Your task to perform on an android device: What's the weather today? Image 0: 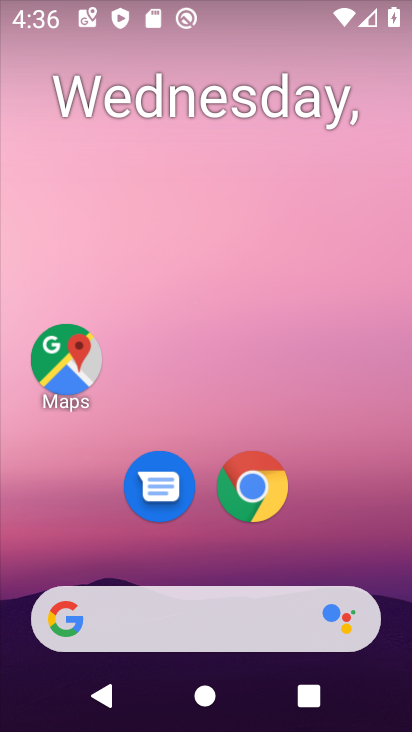
Step 0: drag from (191, 564) to (259, 145)
Your task to perform on an android device: What's the weather today? Image 1: 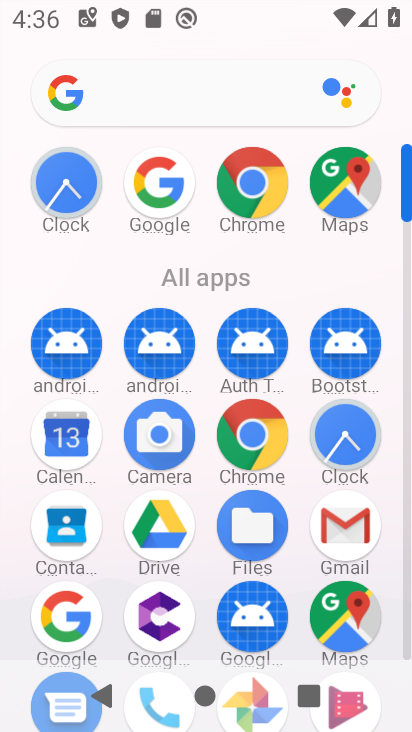
Step 1: click (66, 637)
Your task to perform on an android device: What's the weather today? Image 2: 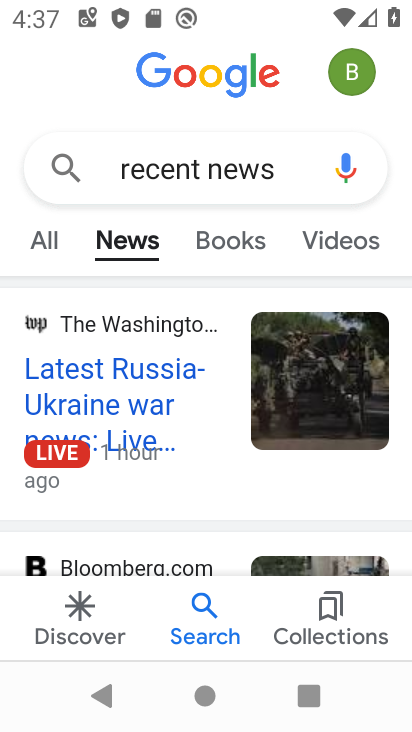
Step 2: click (282, 170)
Your task to perform on an android device: What's the weather today? Image 3: 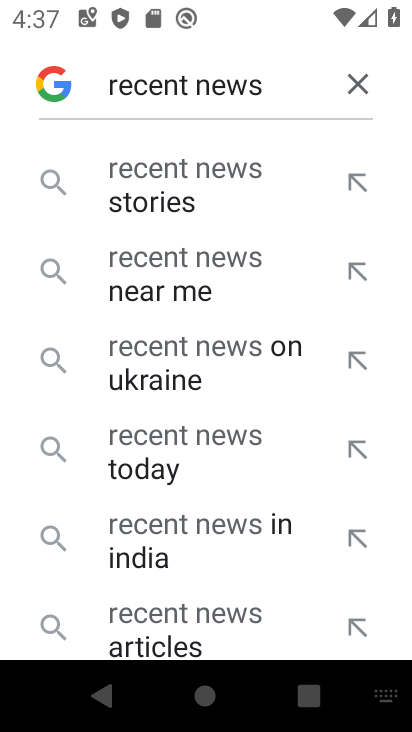
Step 3: click (352, 82)
Your task to perform on an android device: What's the weather today? Image 4: 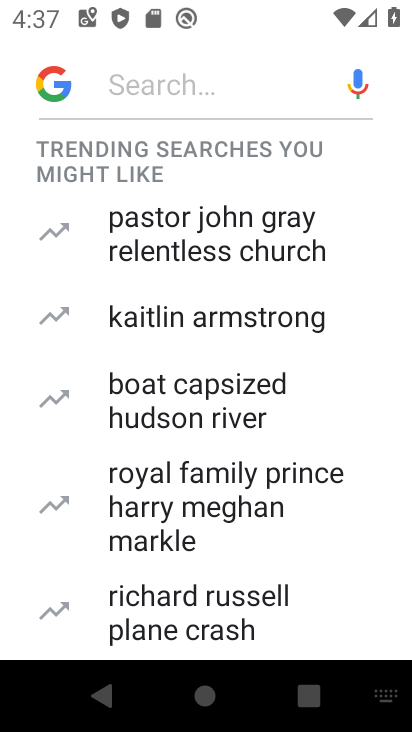
Step 4: type "weather"
Your task to perform on an android device: What's the weather today? Image 5: 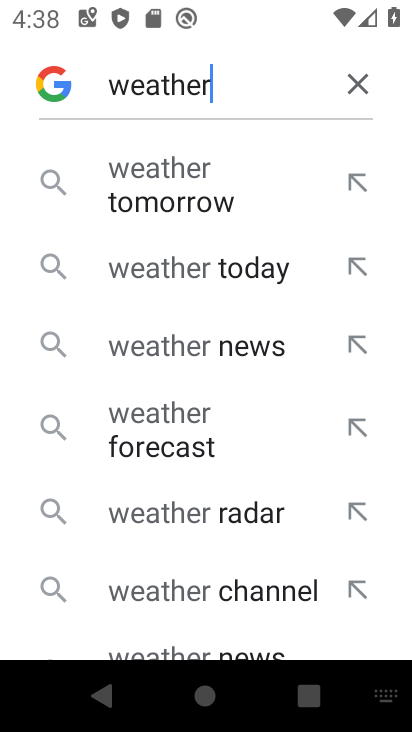
Step 5: click (211, 272)
Your task to perform on an android device: What's the weather today? Image 6: 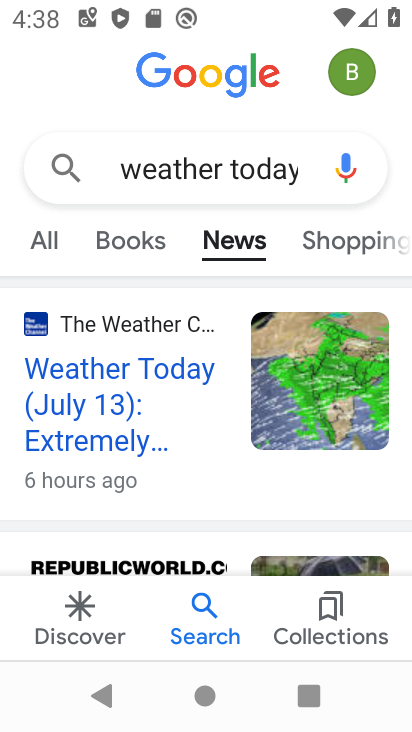
Step 6: task complete